Your task to perform on an android device: open chrome and create a bookmark for the current page Image 0: 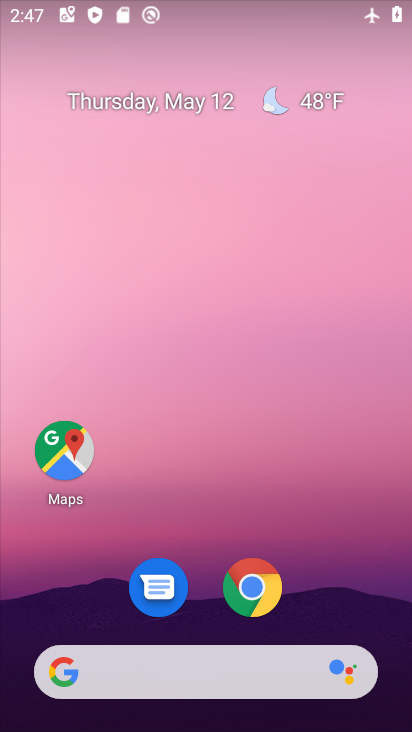
Step 0: drag from (219, 642) to (218, 122)
Your task to perform on an android device: open chrome and create a bookmark for the current page Image 1: 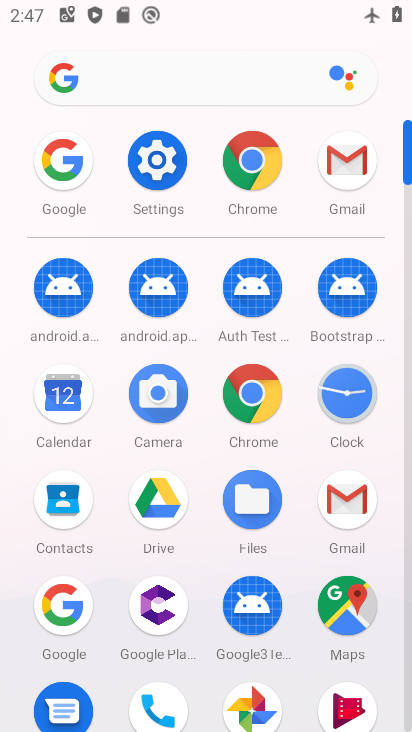
Step 1: drag from (287, 558) to (300, 348)
Your task to perform on an android device: open chrome and create a bookmark for the current page Image 2: 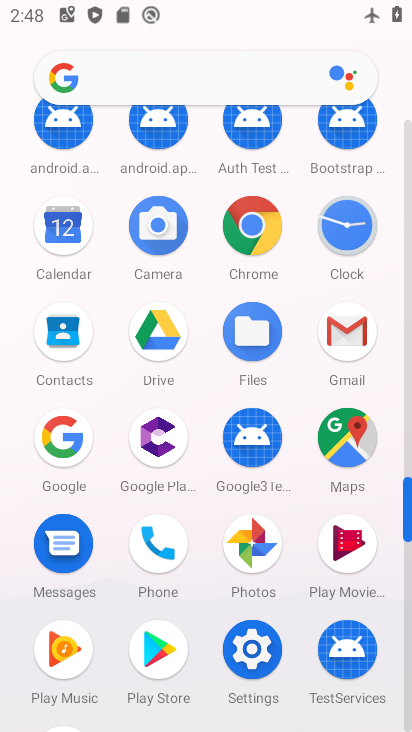
Step 2: click (269, 267)
Your task to perform on an android device: open chrome and create a bookmark for the current page Image 3: 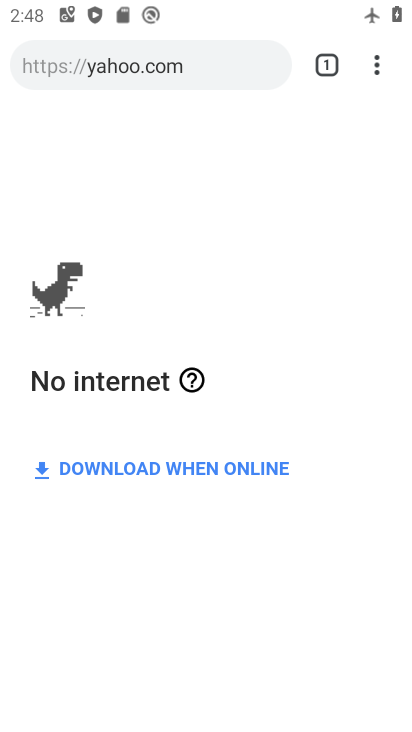
Step 3: click (379, 67)
Your task to perform on an android device: open chrome and create a bookmark for the current page Image 4: 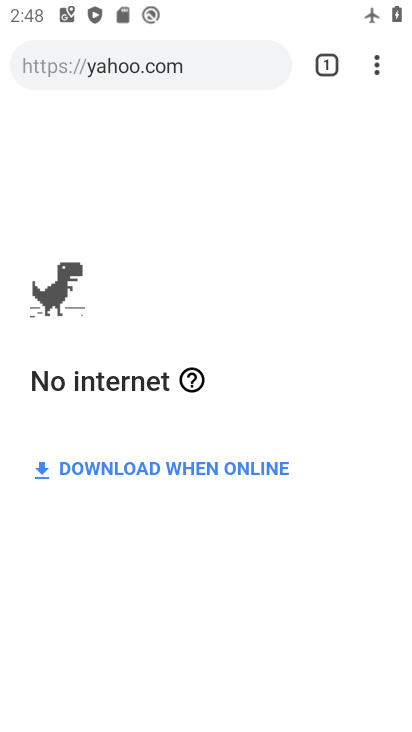
Step 4: task complete